Your task to perform on an android device: Go to Google maps Image 0: 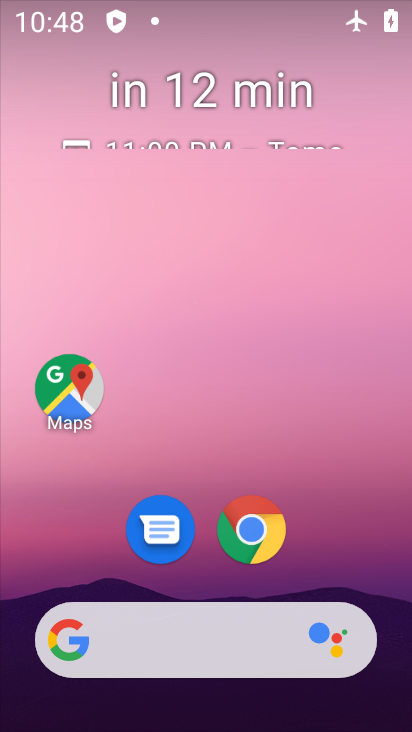
Step 0: drag from (367, 638) to (109, 103)
Your task to perform on an android device: Go to Google maps Image 1: 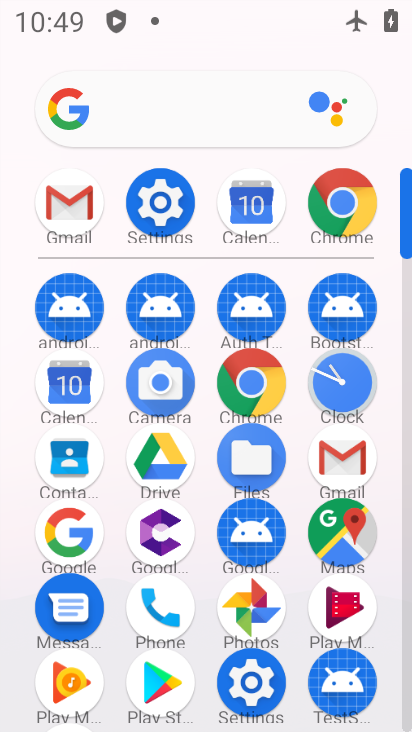
Step 1: click (334, 535)
Your task to perform on an android device: Go to Google maps Image 2: 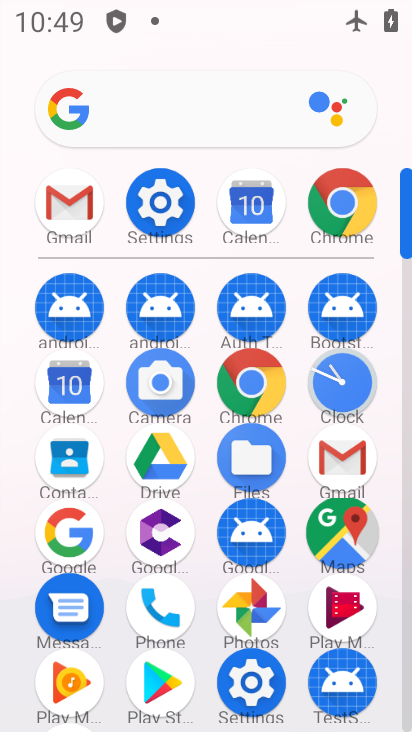
Step 2: click (336, 535)
Your task to perform on an android device: Go to Google maps Image 3: 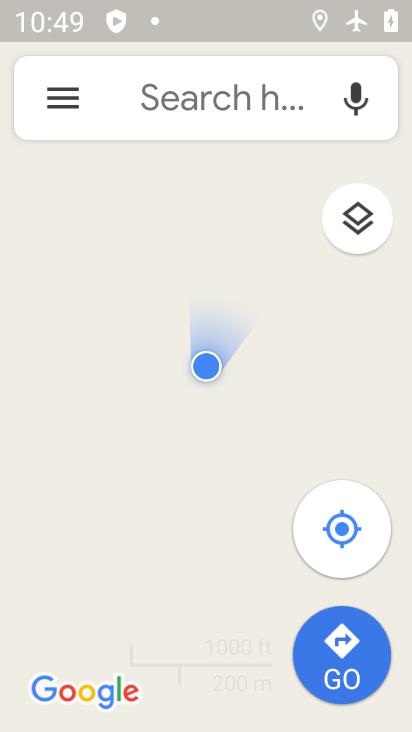
Step 3: task complete